Your task to perform on an android device: Open Google Chrome and open the bookmarks view Image 0: 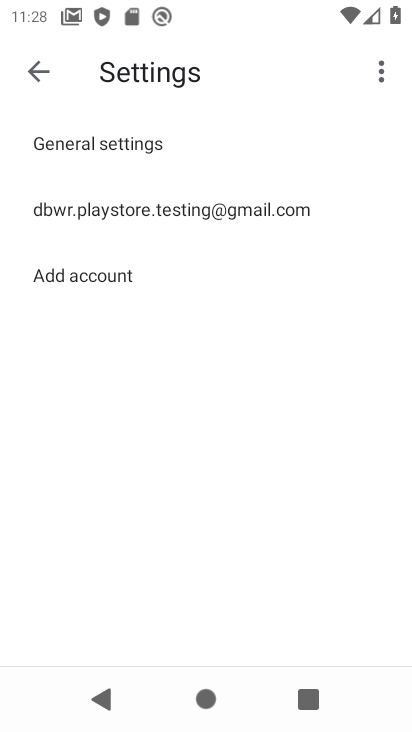
Step 0: click (34, 72)
Your task to perform on an android device: Open Google Chrome and open the bookmarks view Image 1: 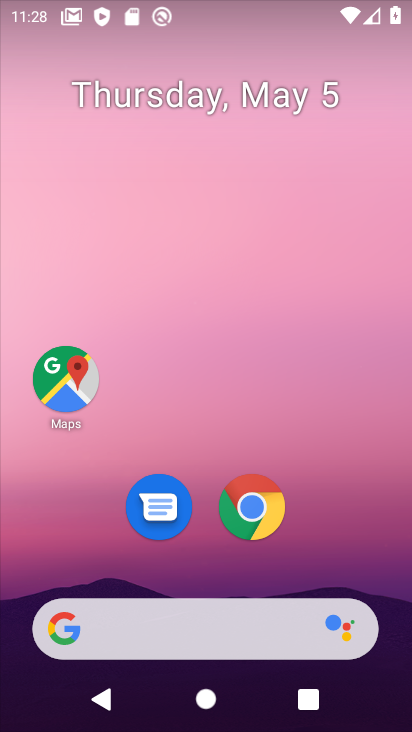
Step 1: drag from (332, 590) to (168, 93)
Your task to perform on an android device: Open Google Chrome and open the bookmarks view Image 2: 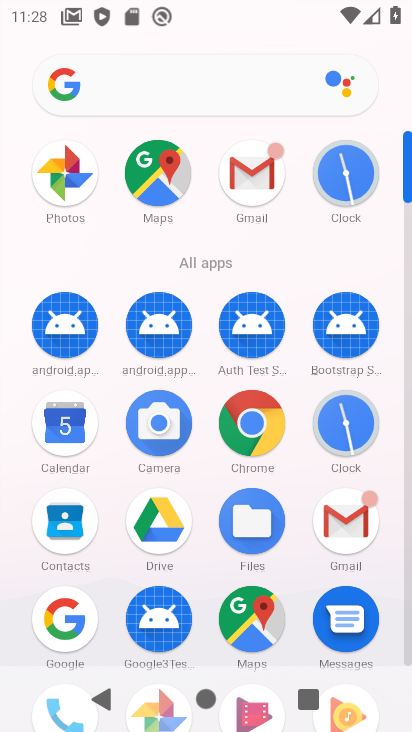
Step 2: click (249, 423)
Your task to perform on an android device: Open Google Chrome and open the bookmarks view Image 3: 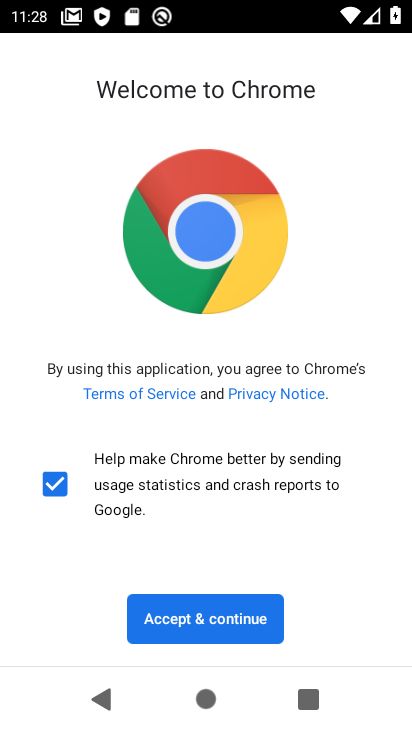
Step 3: click (188, 607)
Your task to perform on an android device: Open Google Chrome and open the bookmarks view Image 4: 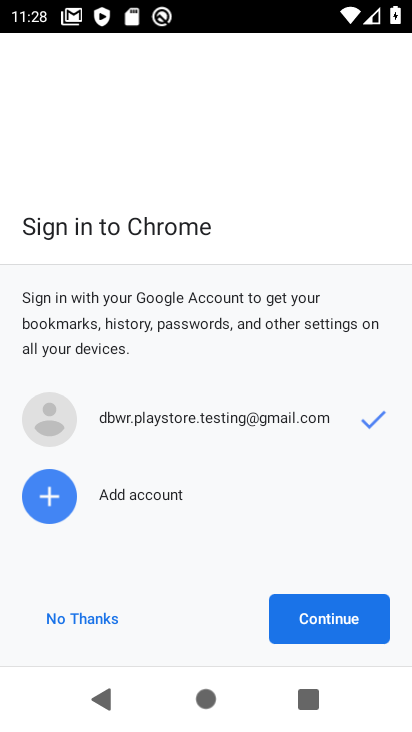
Step 4: click (330, 612)
Your task to perform on an android device: Open Google Chrome and open the bookmarks view Image 5: 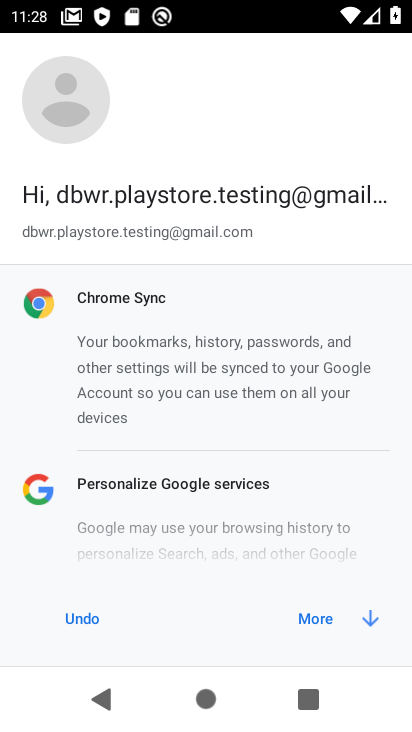
Step 5: click (310, 616)
Your task to perform on an android device: Open Google Chrome and open the bookmarks view Image 6: 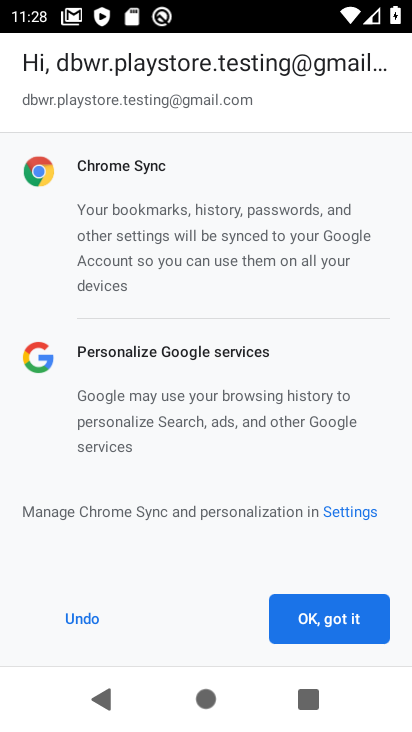
Step 6: click (316, 612)
Your task to perform on an android device: Open Google Chrome and open the bookmarks view Image 7: 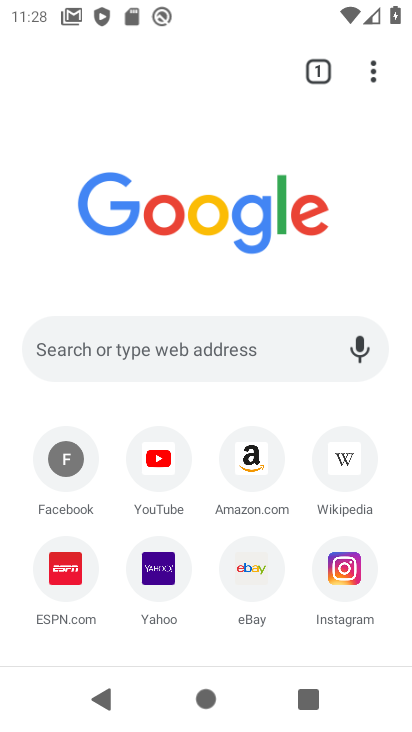
Step 7: click (371, 66)
Your task to perform on an android device: Open Google Chrome and open the bookmarks view Image 8: 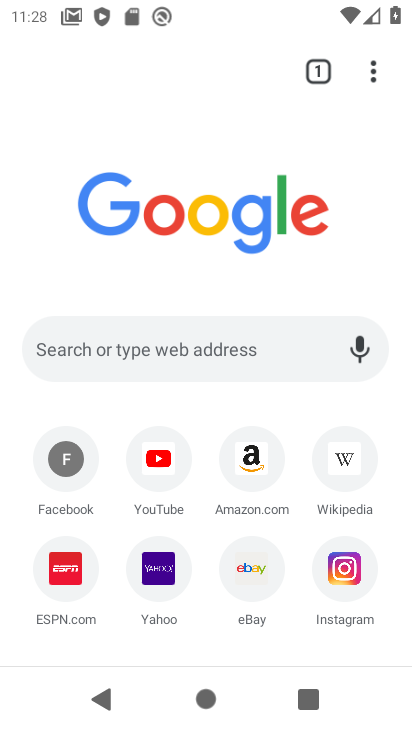
Step 8: click (371, 66)
Your task to perform on an android device: Open Google Chrome and open the bookmarks view Image 9: 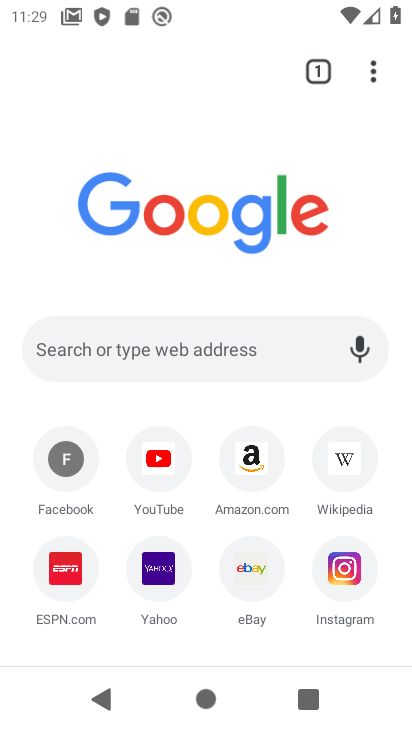
Step 9: click (377, 59)
Your task to perform on an android device: Open Google Chrome and open the bookmarks view Image 10: 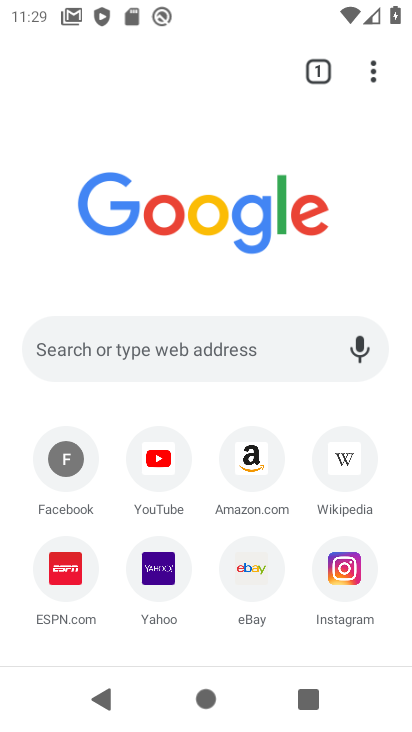
Step 10: click (365, 77)
Your task to perform on an android device: Open Google Chrome and open the bookmarks view Image 11: 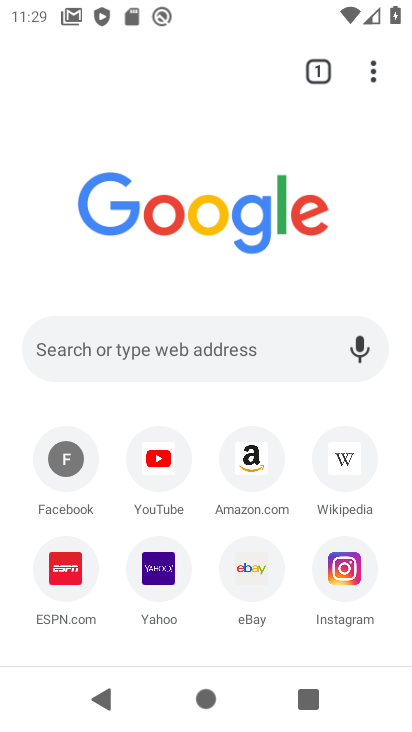
Step 11: click (362, 77)
Your task to perform on an android device: Open Google Chrome and open the bookmarks view Image 12: 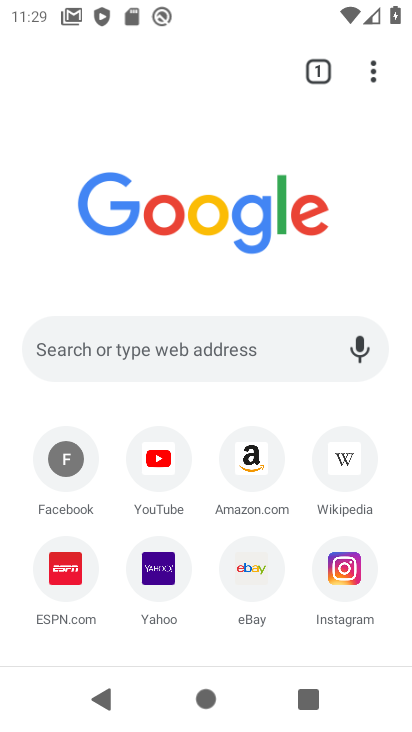
Step 12: click (377, 69)
Your task to perform on an android device: Open Google Chrome and open the bookmarks view Image 13: 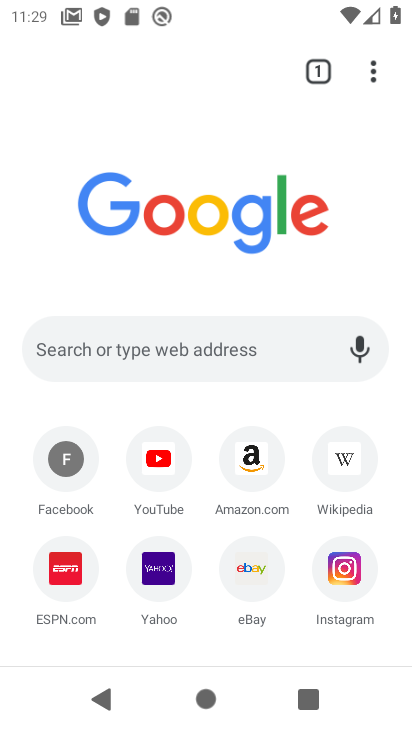
Step 13: click (377, 69)
Your task to perform on an android device: Open Google Chrome and open the bookmarks view Image 14: 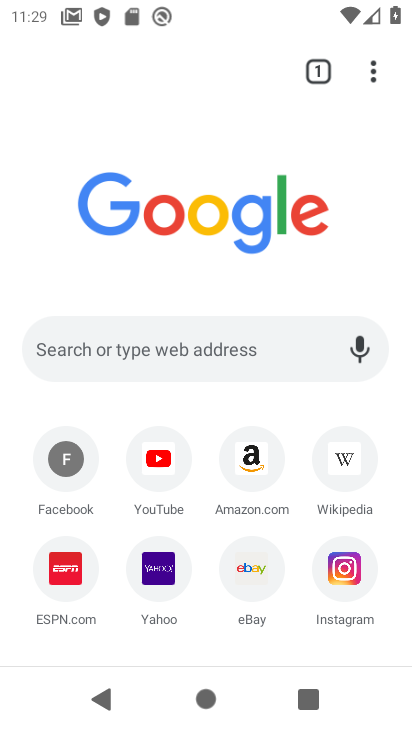
Step 14: click (377, 69)
Your task to perform on an android device: Open Google Chrome and open the bookmarks view Image 15: 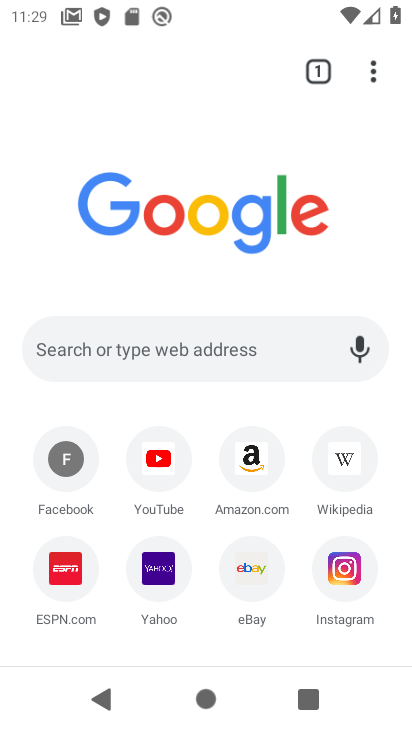
Step 15: drag from (369, 66) to (141, 264)
Your task to perform on an android device: Open Google Chrome and open the bookmarks view Image 16: 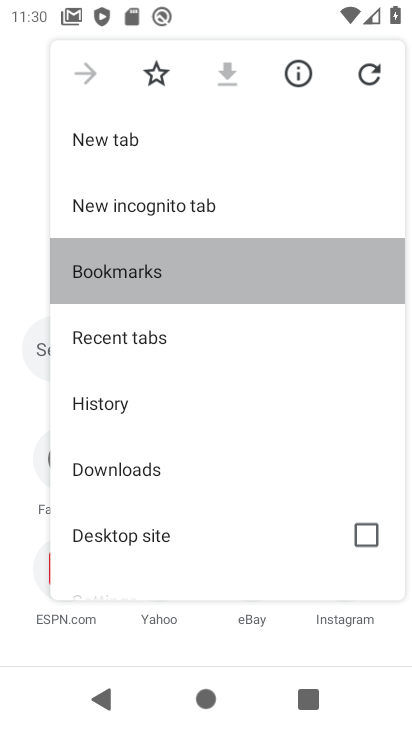
Step 16: click (141, 264)
Your task to perform on an android device: Open Google Chrome and open the bookmarks view Image 17: 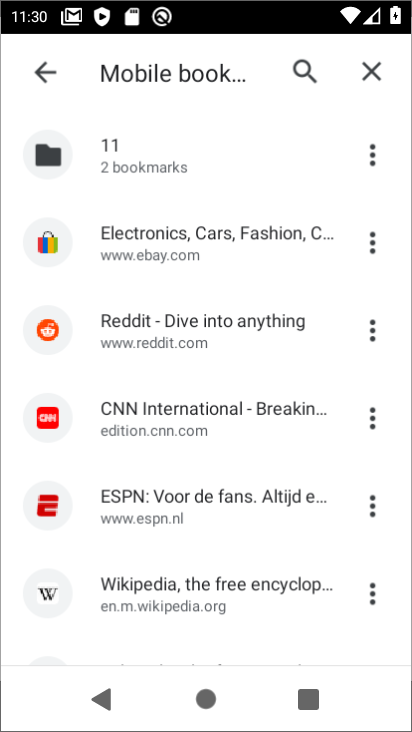
Step 17: click (146, 264)
Your task to perform on an android device: Open Google Chrome and open the bookmarks view Image 18: 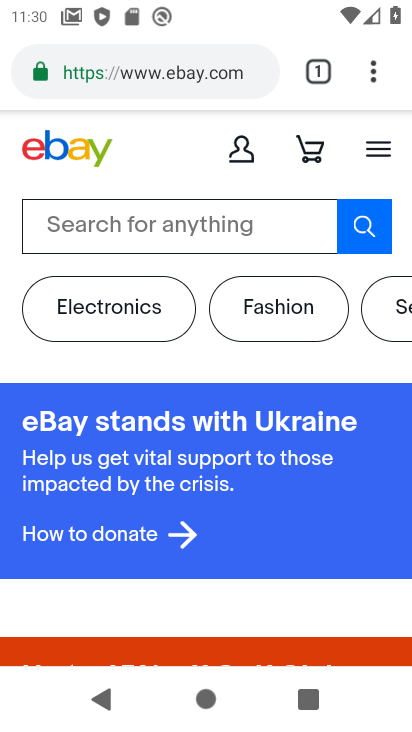
Step 18: task complete